Your task to perform on an android device: Open my contact list Image 0: 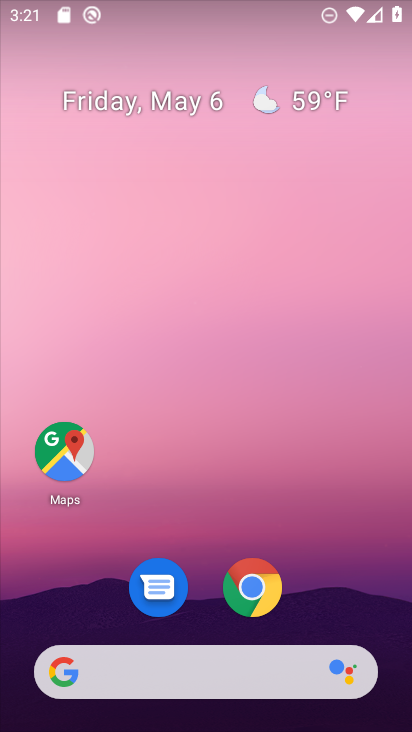
Step 0: drag from (336, 622) to (352, 86)
Your task to perform on an android device: Open my contact list Image 1: 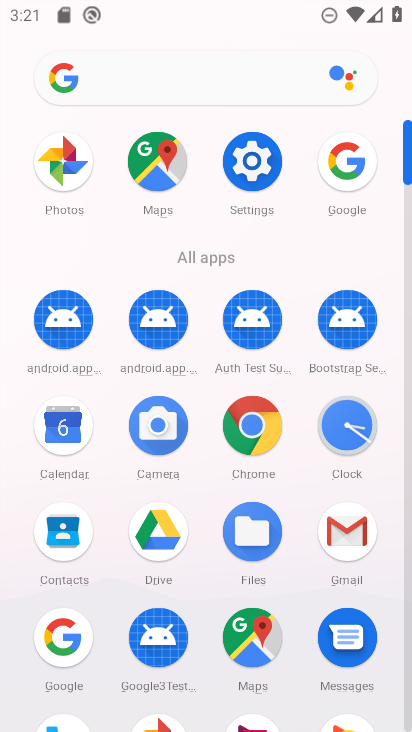
Step 1: click (61, 534)
Your task to perform on an android device: Open my contact list Image 2: 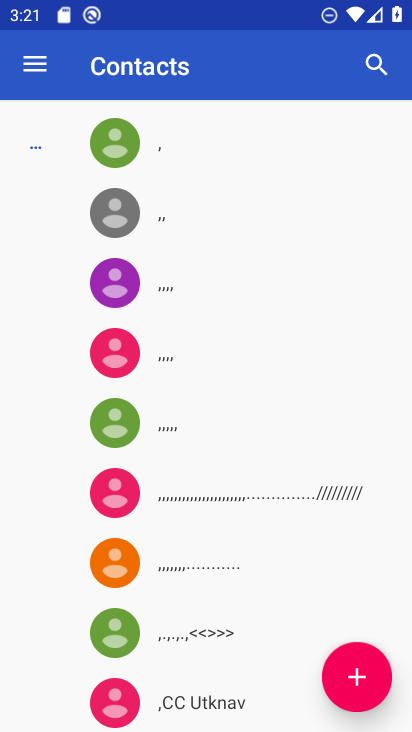
Step 2: task complete